Your task to perform on an android device: turn on improve location accuracy Image 0: 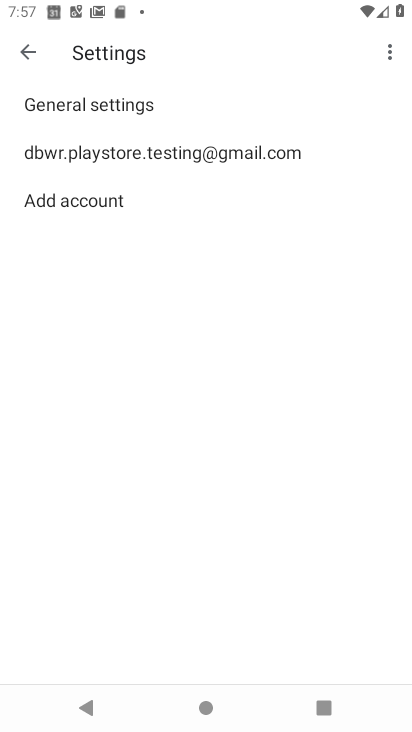
Step 0: press home button
Your task to perform on an android device: turn on improve location accuracy Image 1: 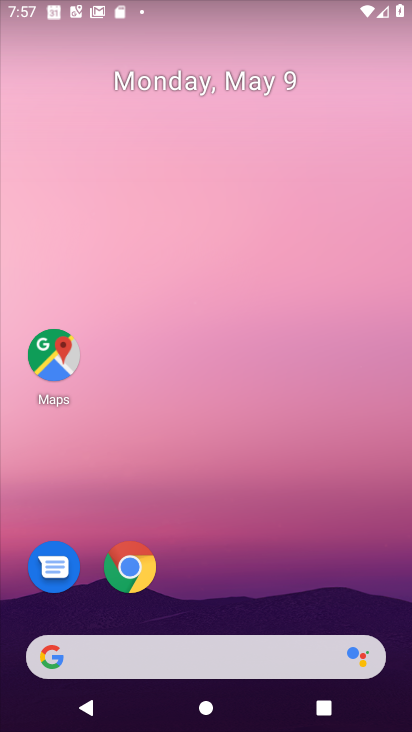
Step 1: drag from (201, 578) to (256, 173)
Your task to perform on an android device: turn on improve location accuracy Image 2: 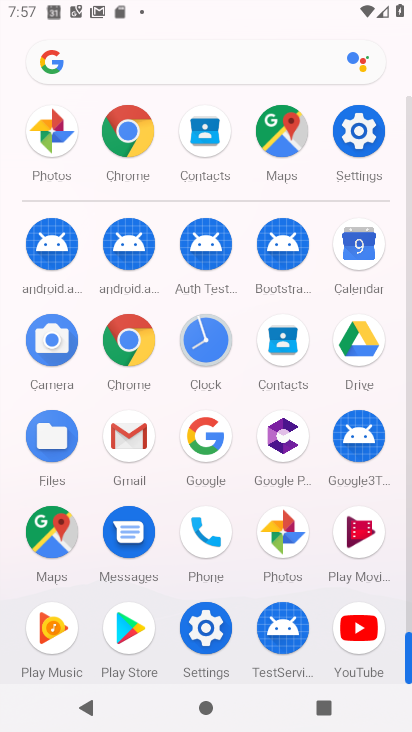
Step 2: click (204, 612)
Your task to perform on an android device: turn on improve location accuracy Image 3: 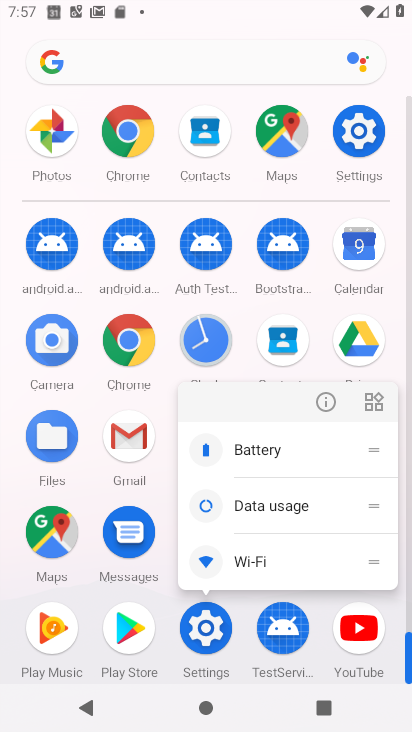
Step 3: click (331, 397)
Your task to perform on an android device: turn on improve location accuracy Image 4: 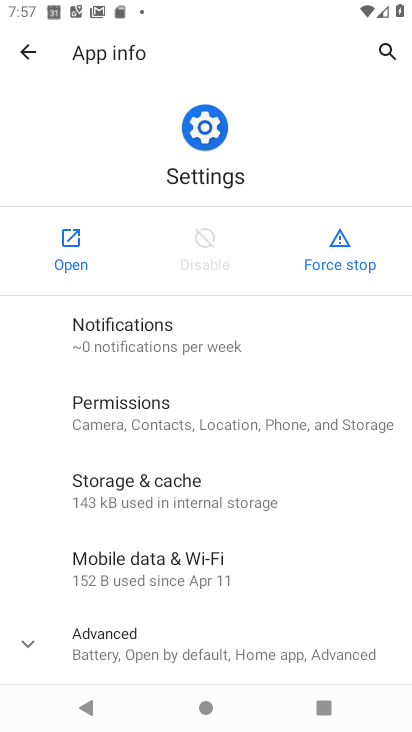
Step 4: click (72, 260)
Your task to perform on an android device: turn on improve location accuracy Image 5: 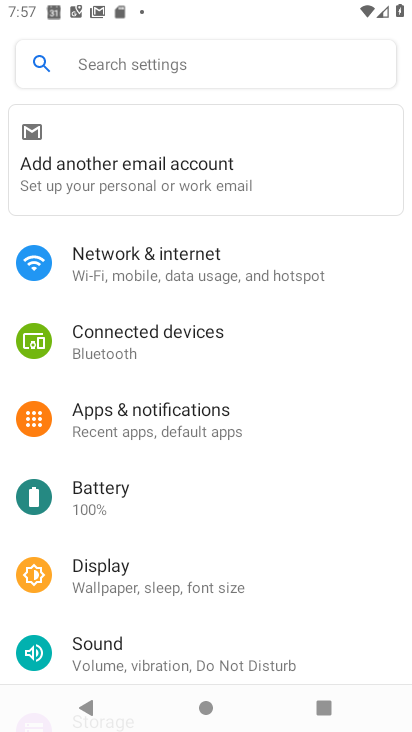
Step 5: drag from (213, 623) to (307, 116)
Your task to perform on an android device: turn on improve location accuracy Image 6: 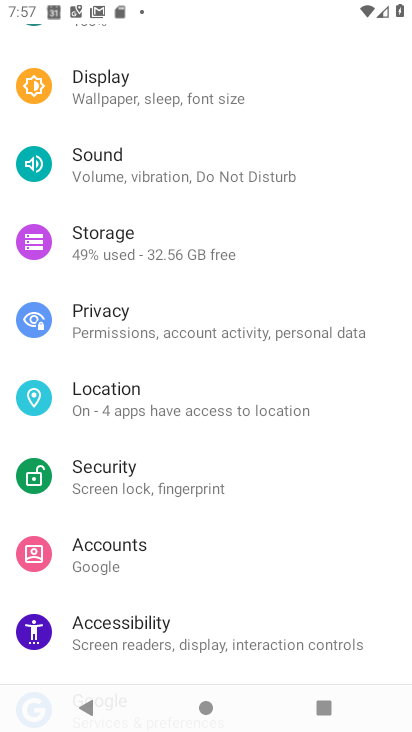
Step 6: click (170, 410)
Your task to perform on an android device: turn on improve location accuracy Image 7: 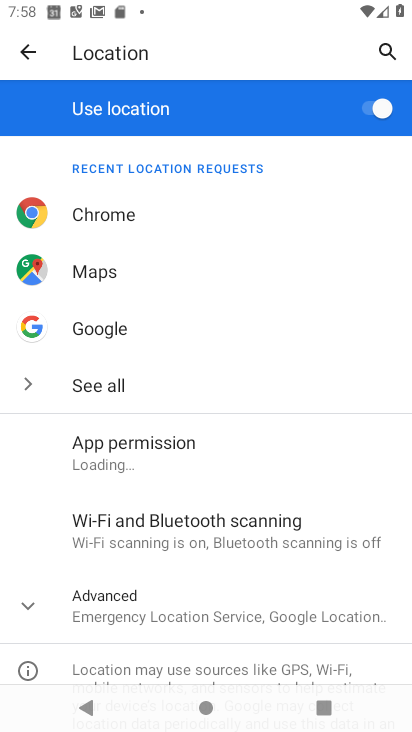
Step 7: drag from (185, 517) to (246, 222)
Your task to perform on an android device: turn on improve location accuracy Image 8: 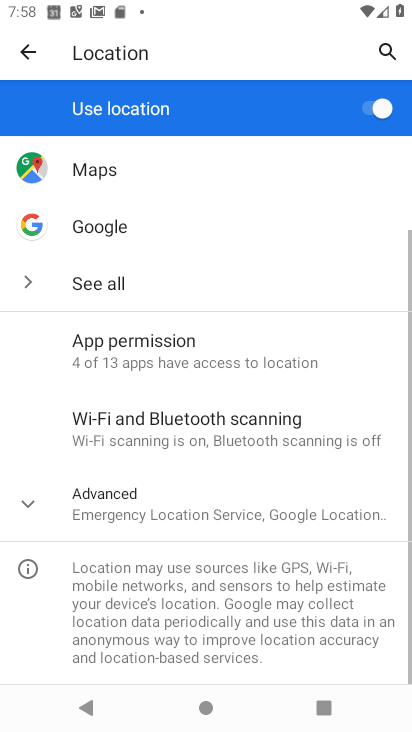
Step 8: click (216, 521)
Your task to perform on an android device: turn on improve location accuracy Image 9: 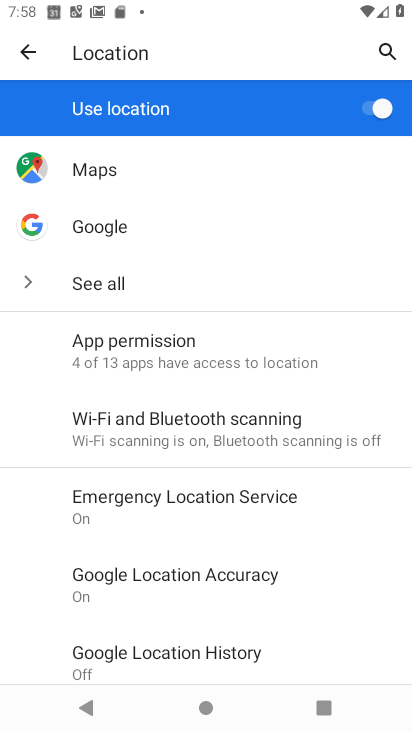
Step 9: click (223, 578)
Your task to perform on an android device: turn on improve location accuracy Image 10: 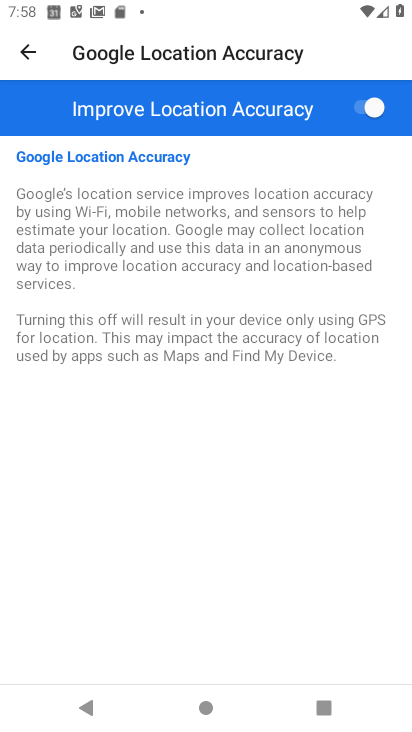
Step 10: task complete